Your task to perform on an android device: check android version Image 0: 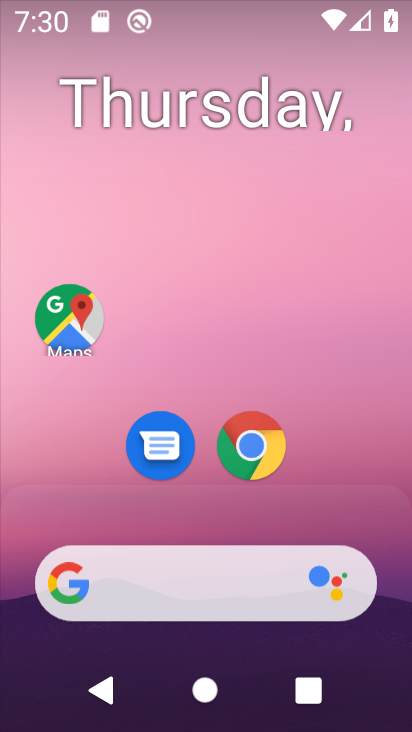
Step 0: drag from (316, 512) to (356, 118)
Your task to perform on an android device: check android version Image 1: 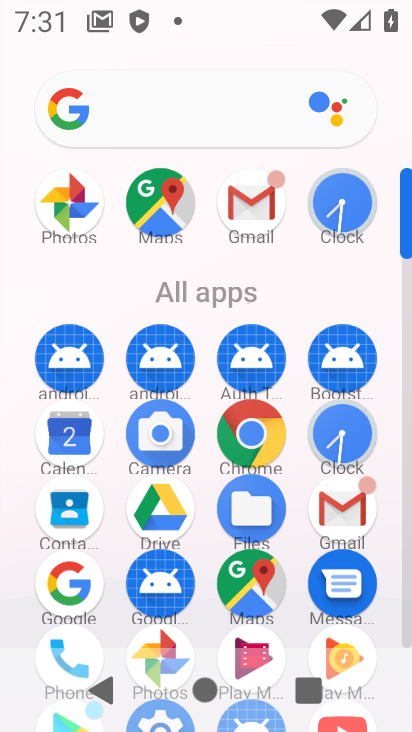
Step 1: drag from (288, 553) to (305, 201)
Your task to perform on an android device: check android version Image 2: 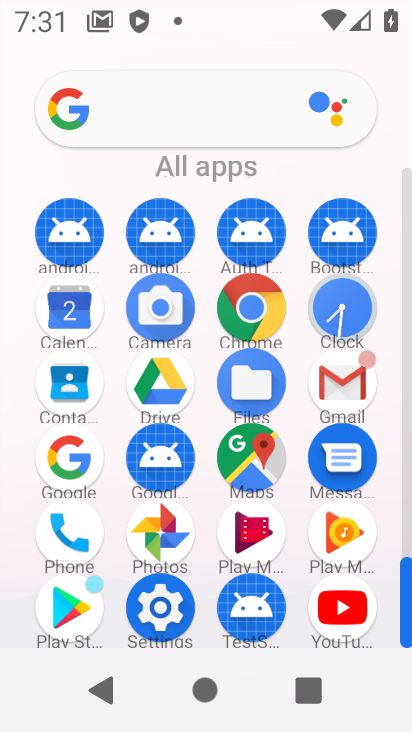
Step 2: click (169, 602)
Your task to perform on an android device: check android version Image 3: 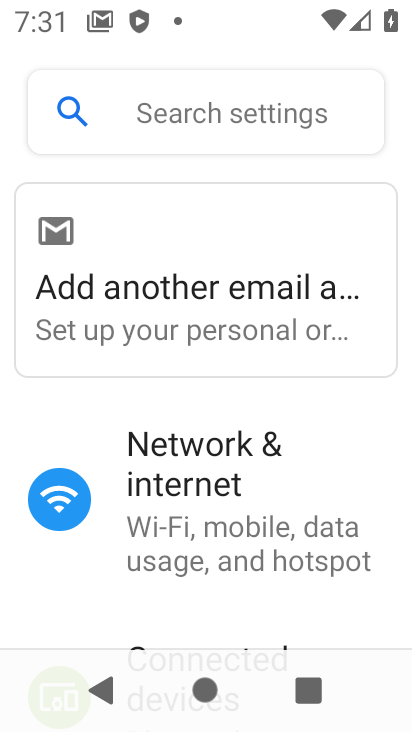
Step 3: drag from (183, 556) to (242, 217)
Your task to perform on an android device: check android version Image 4: 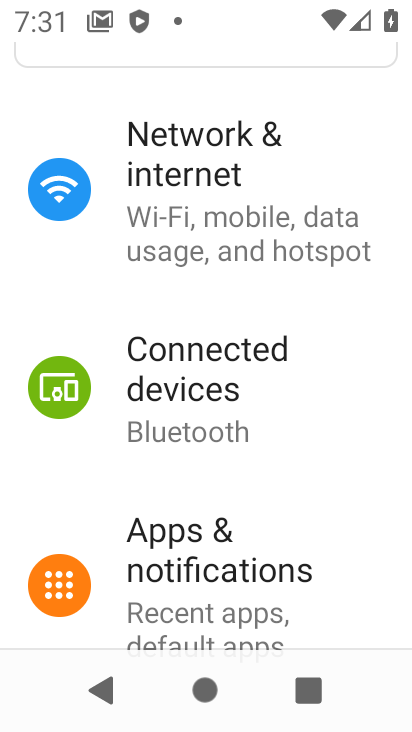
Step 4: drag from (239, 627) to (284, 300)
Your task to perform on an android device: check android version Image 5: 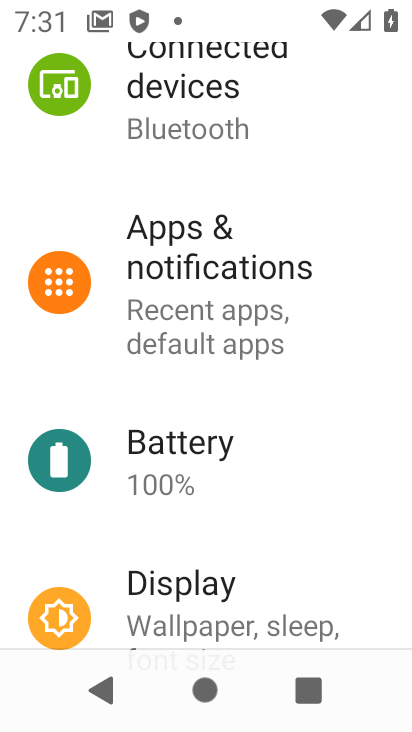
Step 5: drag from (258, 610) to (280, 404)
Your task to perform on an android device: check android version Image 6: 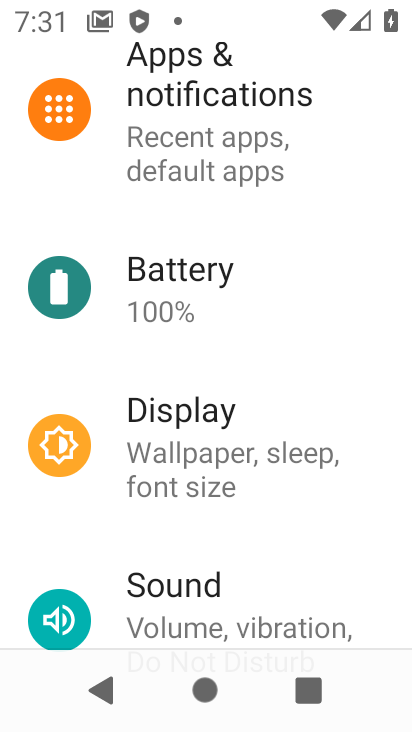
Step 6: drag from (254, 621) to (290, 233)
Your task to perform on an android device: check android version Image 7: 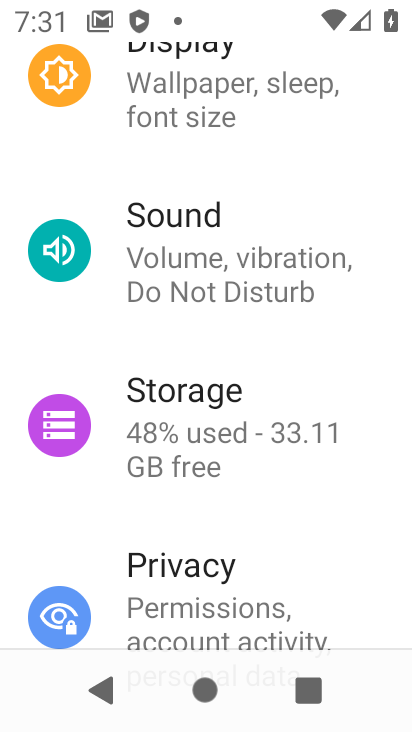
Step 7: drag from (257, 600) to (267, 212)
Your task to perform on an android device: check android version Image 8: 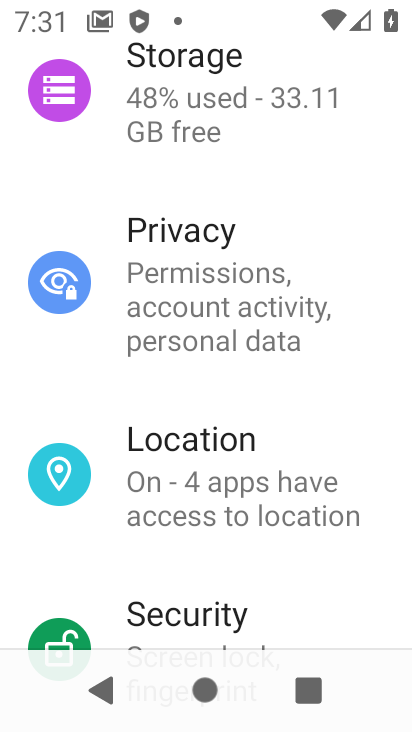
Step 8: drag from (232, 635) to (287, 146)
Your task to perform on an android device: check android version Image 9: 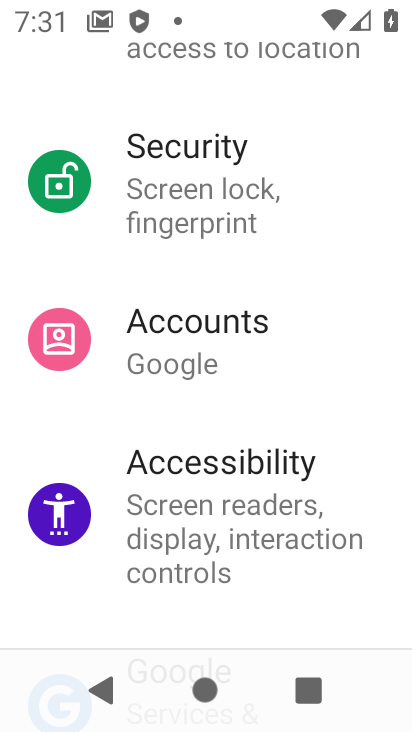
Step 9: drag from (264, 584) to (313, 139)
Your task to perform on an android device: check android version Image 10: 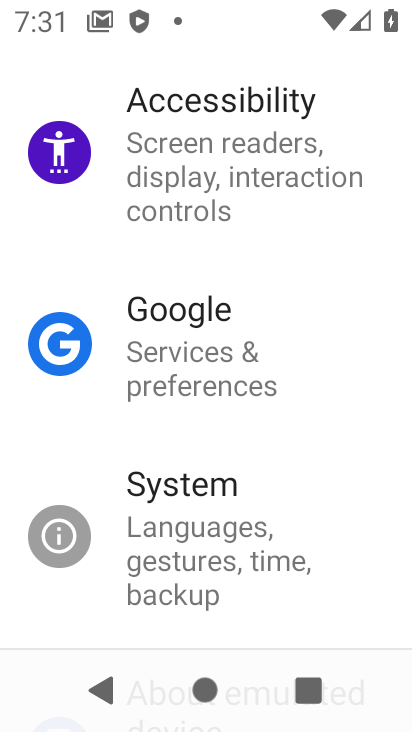
Step 10: drag from (268, 571) to (318, 170)
Your task to perform on an android device: check android version Image 11: 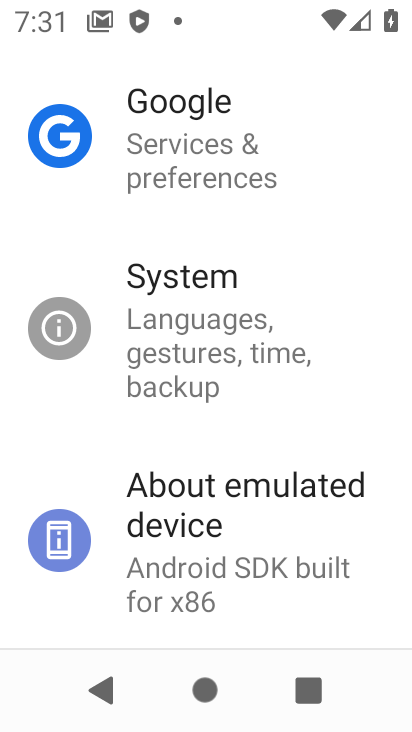
Step 11: drag from (280, 576) to (320, 245)
Your task to perform on an android device: check android version Image 12: 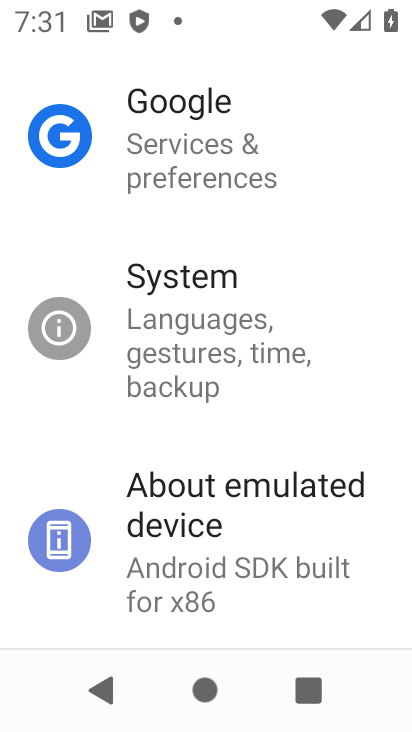
Step 12: drag from (332, 265) to (368, 195)
Your task to perform on an android device: check android version Image 13: 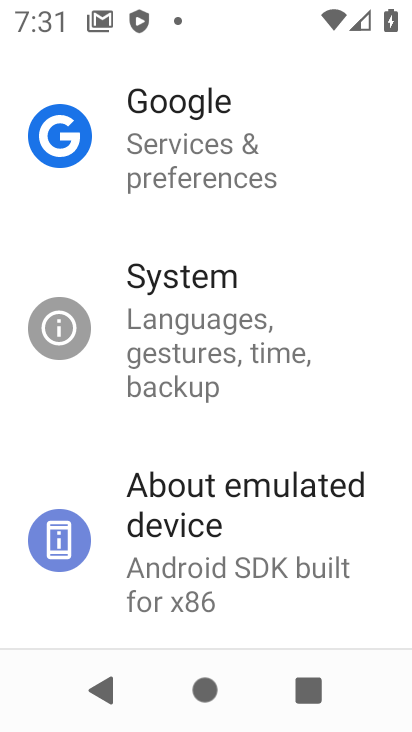
Step 13: click (283, 588)
Your task to perform on an android device: check android version Image 14: 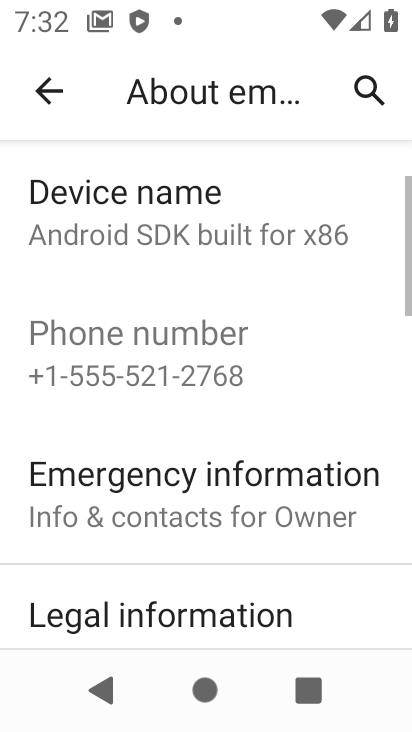
Step 14: task complete